Your task to perform on an android device: Do I have any events today? Image 0: 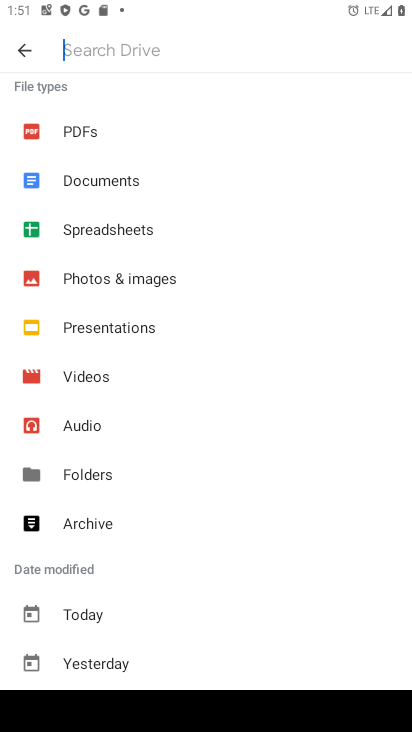
Step 0: press home button
Your task to perform on an android device: Do I have any events today? Image 1: 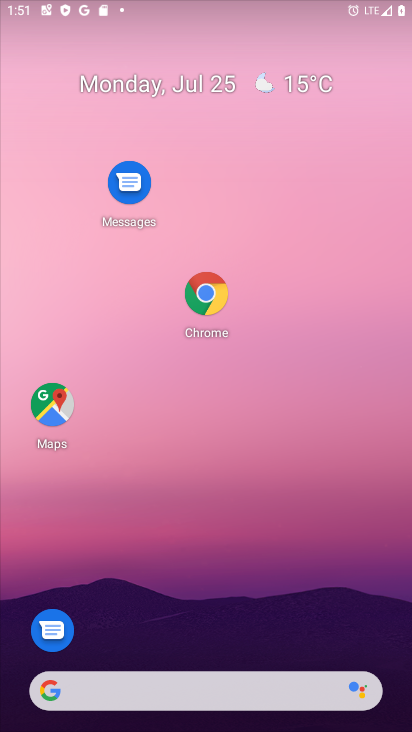
Step 1: drag from (270, 606) to (342, 66)
Your task to perform on an android device: Do I have any events today? Image 2: 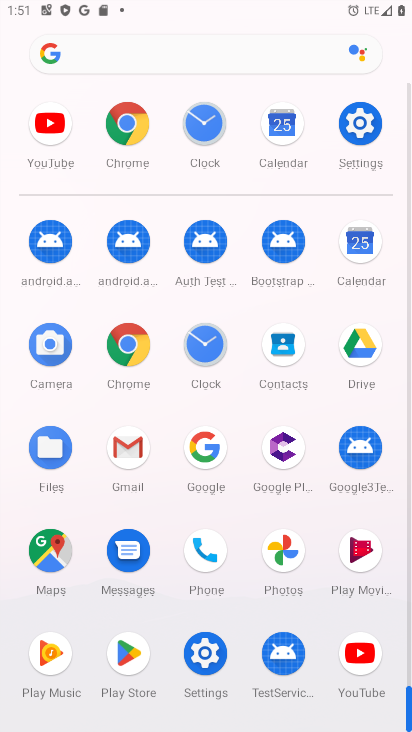
Step 2: click (121, 448)
Your task to perform on an android device: Do I have any events today? Image 3: 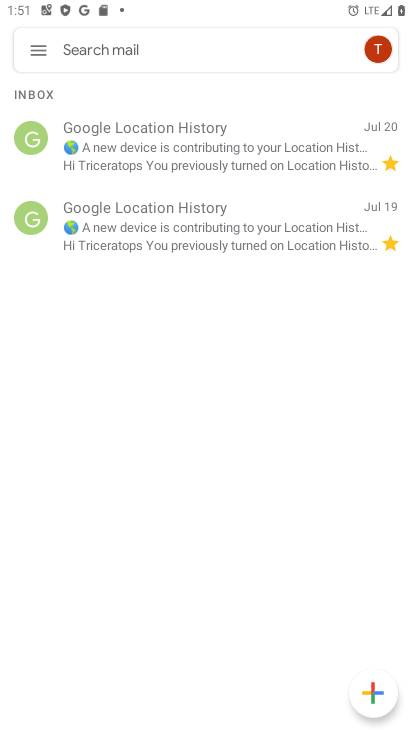
Step 3: press home button
Your task to perform on an android device: Do I have any events today? Image 4: 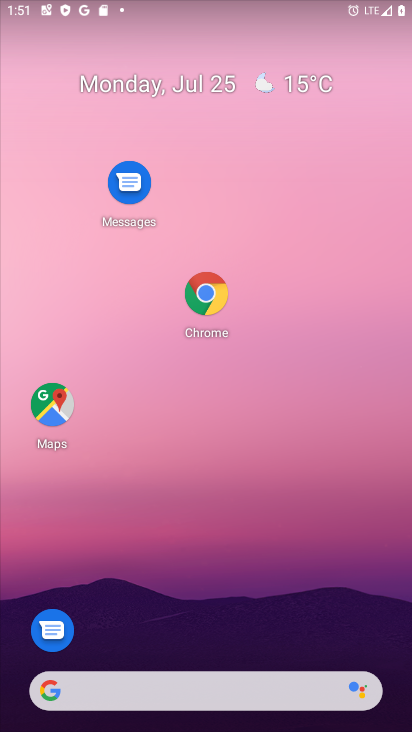
Step 4: drag from (249, 632) to (290, 86)
Your task to perform on an android device: Do I have any events today? Image 5: 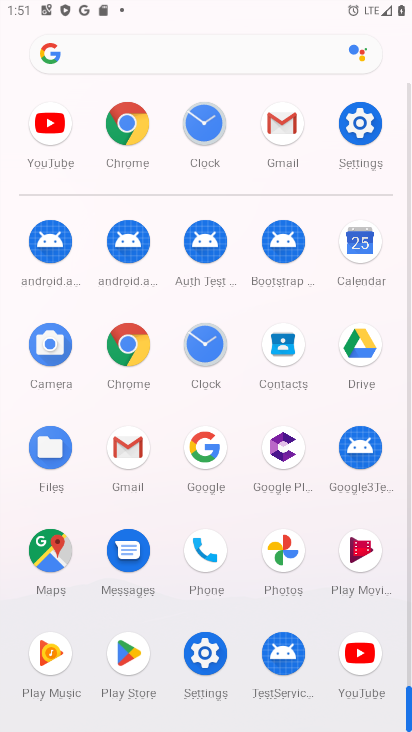
Step 5: click (360, 244)
Your task to perform on an android device: Do I have any events today? Image 6: 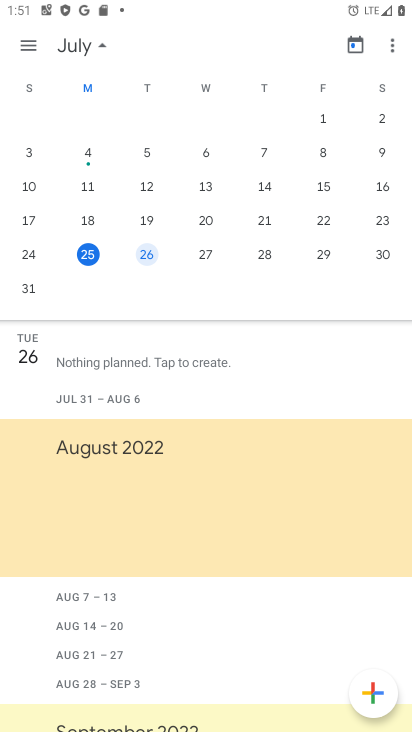
Step 6: drag from (345, 158) to (21, 175)
Your task to perform on an android device: Do I have any events today? Image 7: 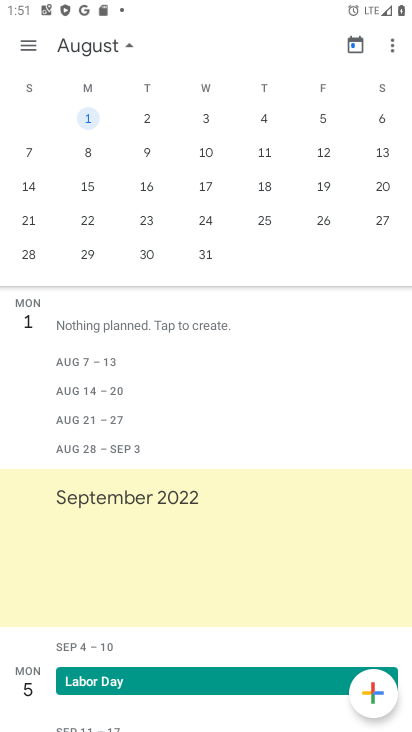
Step 7: drag from (12, 153) to (393, 183)
Your task to perform on an android device: Do I have any events today? Image 8: 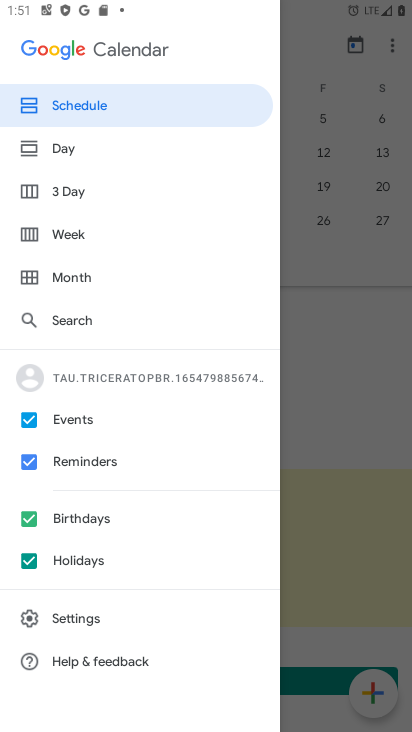
Step 8: click (392, 385)
Your task to perform on an android device: Do I have any events today? Image 9: 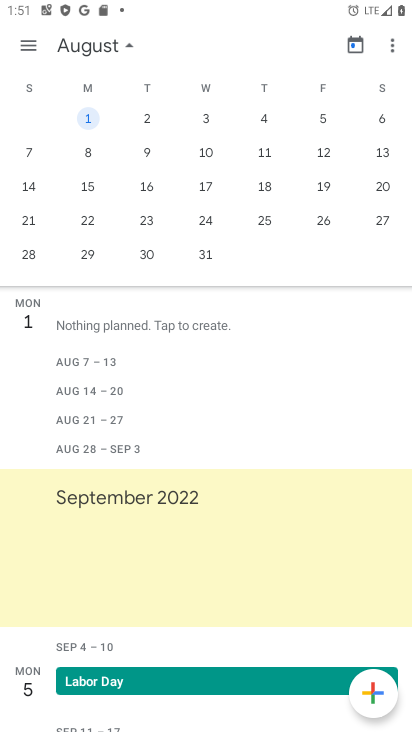
Step 9: drag from (52, 187) to (406, 211)
Your task to perform on an android device: Do I have any events today? Image 10: 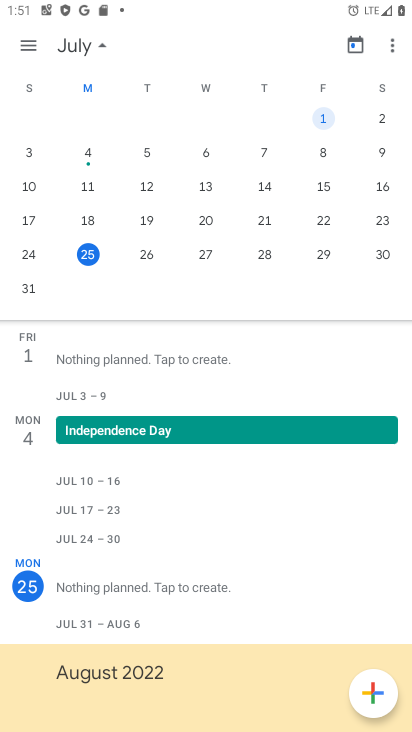
Step 10: click (88, 255)
Your task to perform on an android device: Do I have any events today? Image 11: 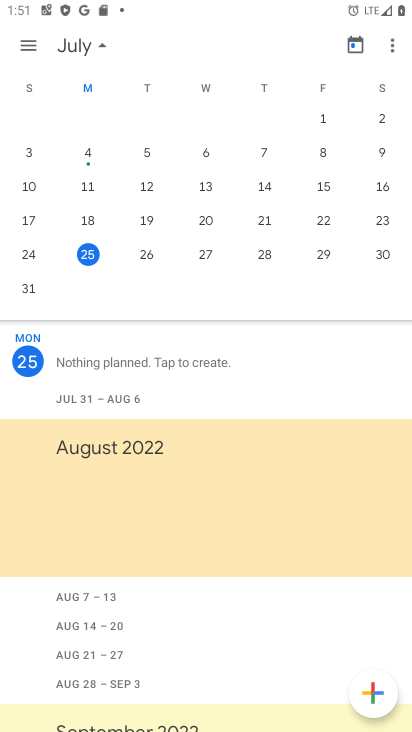
Step 11: task complete